Your task to perform on an android device: see creations saved in the google photos Image 0: 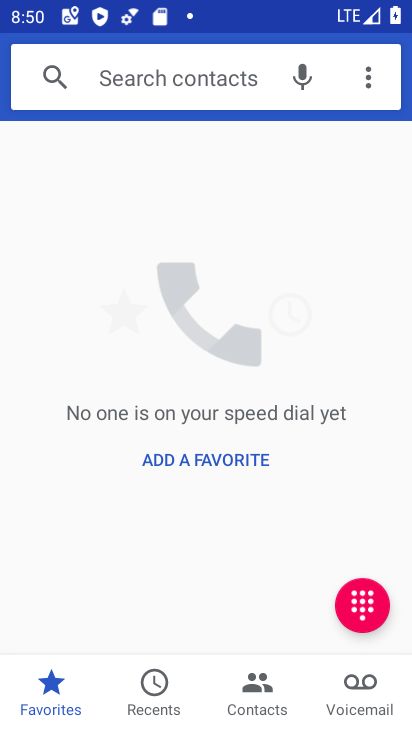
Step 0: press home button
Your task to perform on an android device: see creations saved in the google photos Image 1: 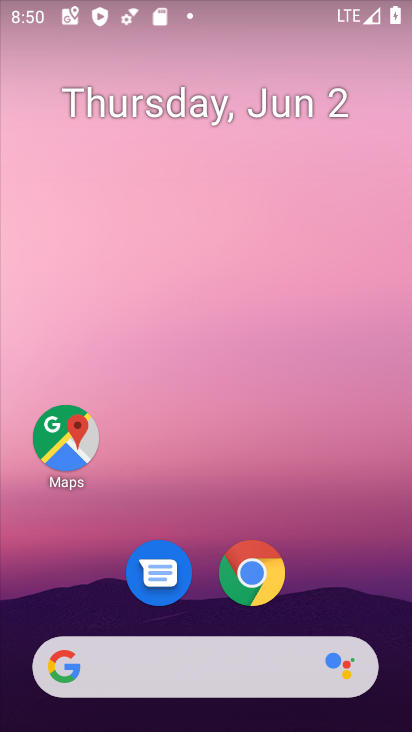
Step 1: drag from (376, 601) to (290, 1)
Your task to perform on an android device: see creations saved in the google photos Image 2: 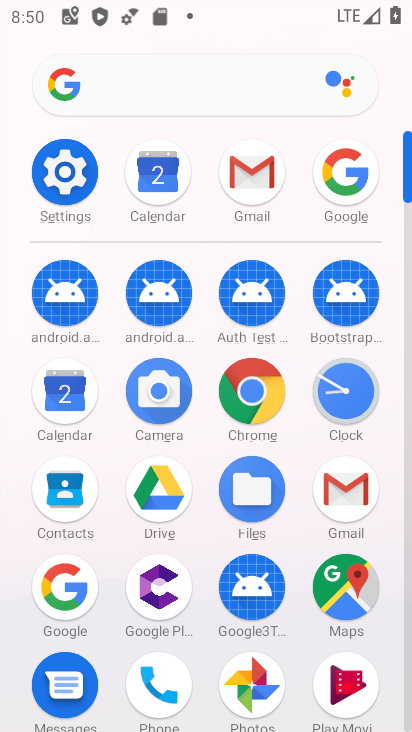
Step 2: click (253, 688)
Your task to perform on an android device: see creations saved in the google photos Image 3: 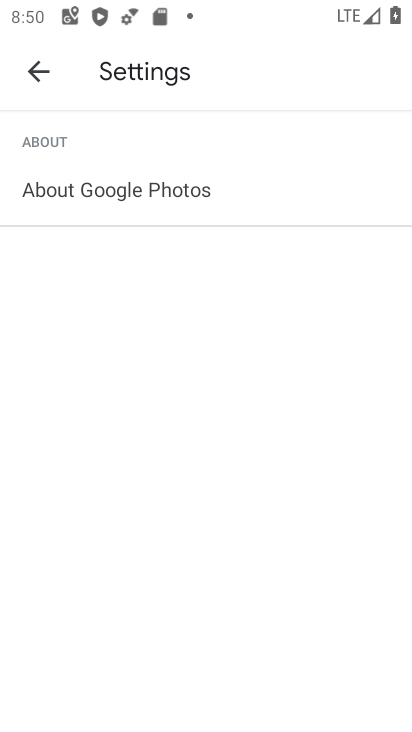
Step 3: click (19, 72)
Your task to perform on an android device: see creations saved in the google photos Image 4: 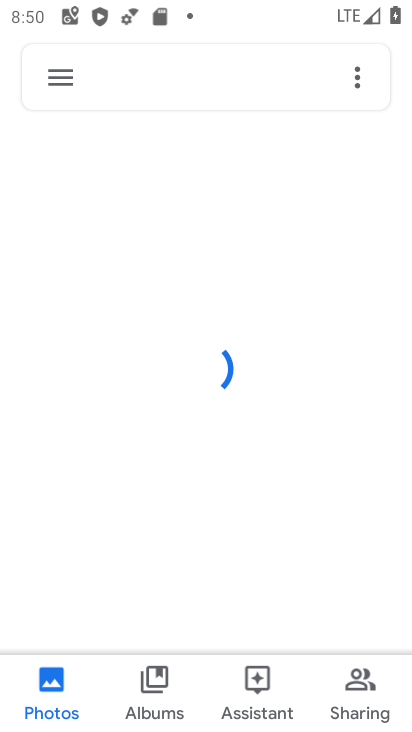
Step 4: click (158, 87)
Your task to perform on an android device: see creations saved in the google photos Image 5: 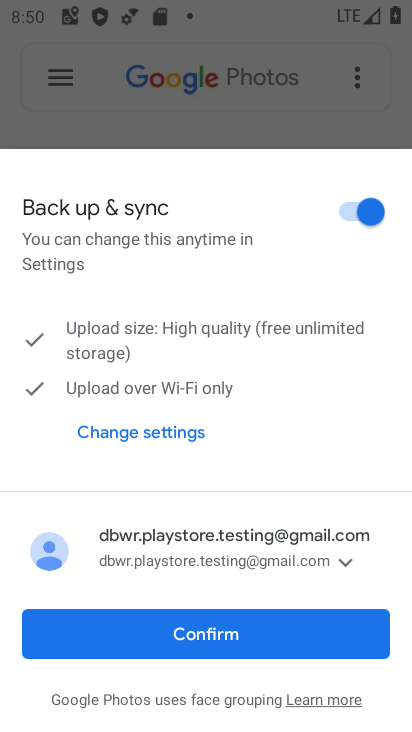
Step 5: click (208, 652)
Your task to perform on an android device: see creations saved in the google photos Image 6: 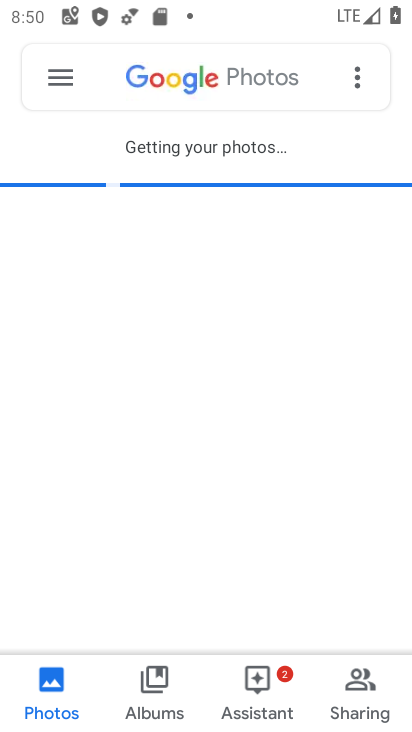
Step 6: click (235, 83)
Your task to perform on an android device: see creations saved in the google photos Image 7: 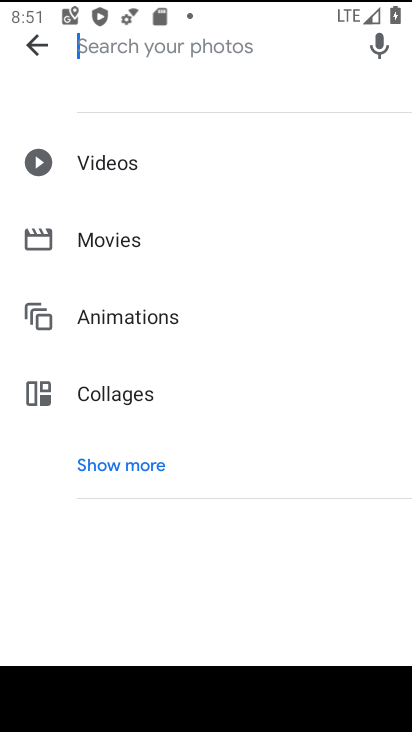
Step 7: click (124, 471)
Your task to perform on an android device: see creations saved in the google photos Image 8: 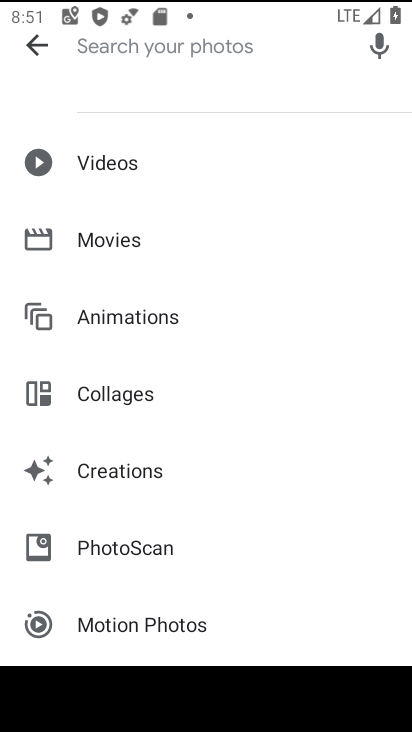
Step 8: click (124, 471)
Your task to perform on an android device: see creations saved in the google photos Image 9: 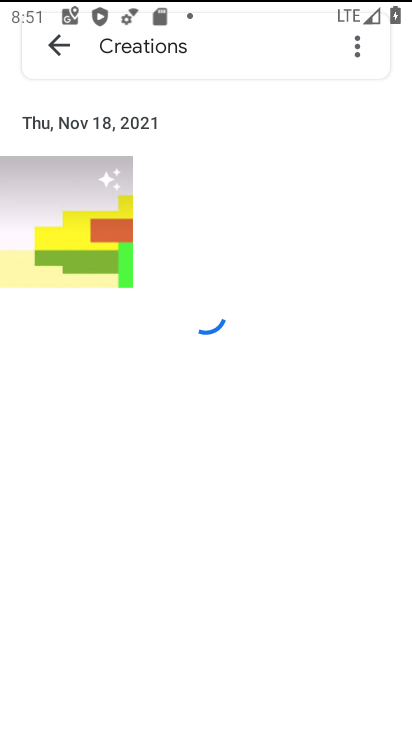
Step 9: task complete